Your task to perform on an android device: turn off javascript in the chrome app Image 0: 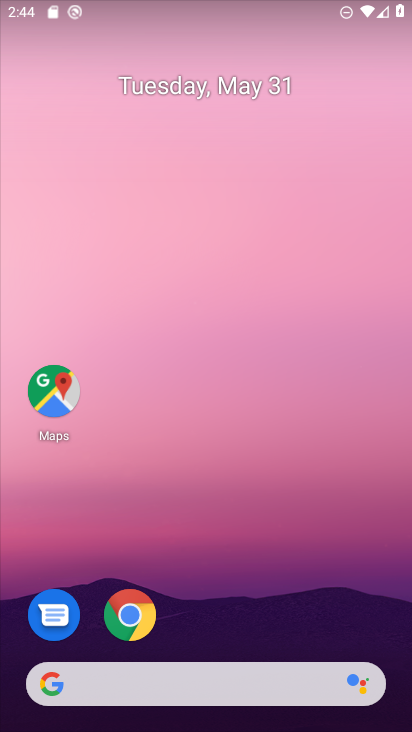
Step 0: drag from (291, 688) to (199, 210)
Your task to perform on an android device: turn off javascript in the chrome app Image 1: 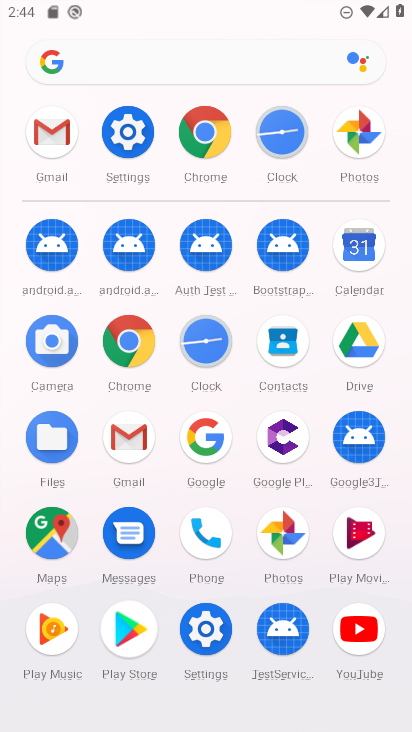
Step 1: click (204, 139)
Your task to perform on an android device: turn off javascript in the chrome app Image 2: 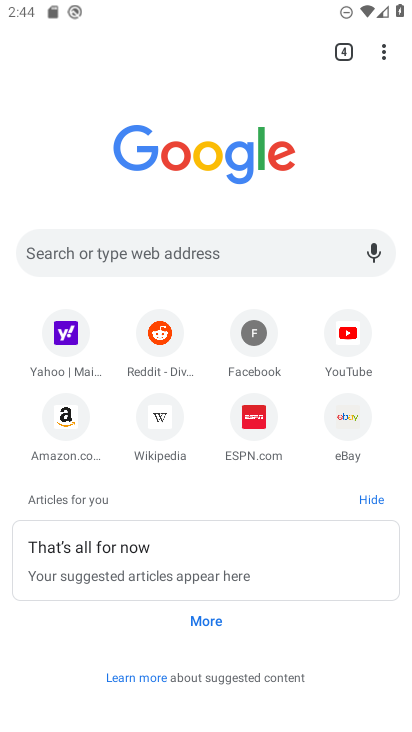
Step 2: drag from (383, 48) to (205, 491)
Your task to perform on an android device: turn off javascript in the chrome app Image 3: 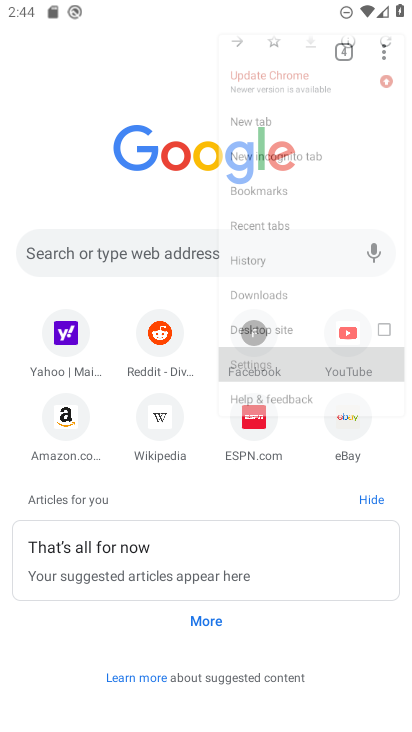
Step 3: click (205, 491)
Your task to perform on an android device: turn off javascript in the chrome app Image 4: 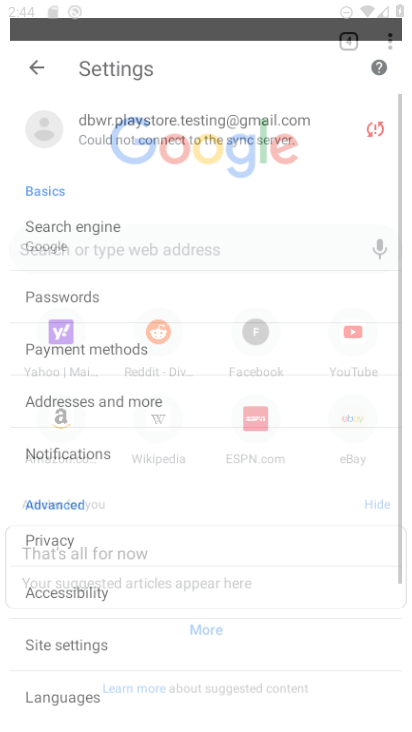
Step 4: click (204, 491)
Your task to perform on an android device: turn off javascript in the chrome app Image 5: 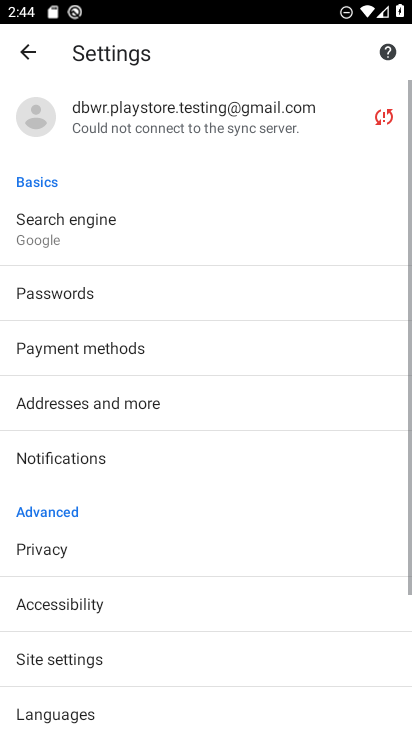
Step 5: drag from (146, 521) to (91, 177)
Your task to perform on an android device: turn off javascript in the chrome app Image 6: 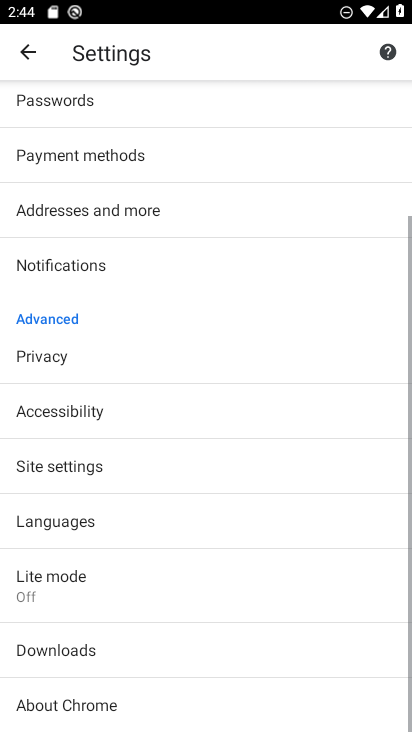
Step 6: drag from (123, 462) to (99, 261)
Your task to perform on an android device: turn off javascript in the chrome app Image 7: 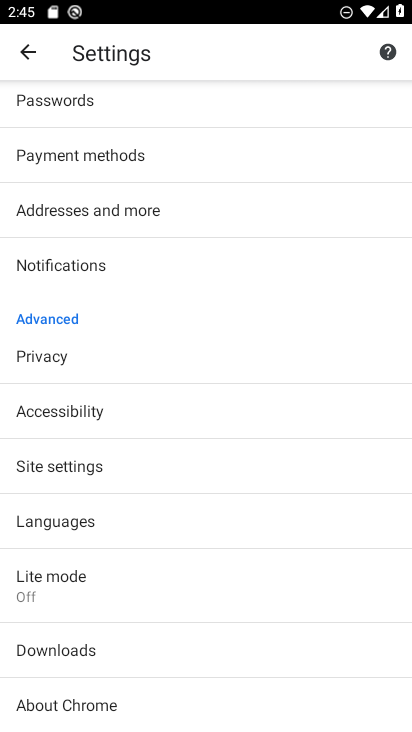
Step 7: click (45, 475)
Your task to perform on an android device: turn off javascript in the chrome app Image 8: 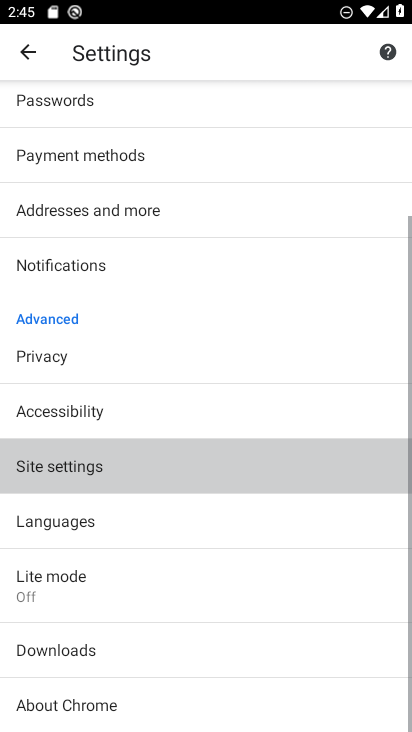
Step 8: click (45, 466)
Your task to perform on an android device: turn off javascript in the chrome app Image 9: 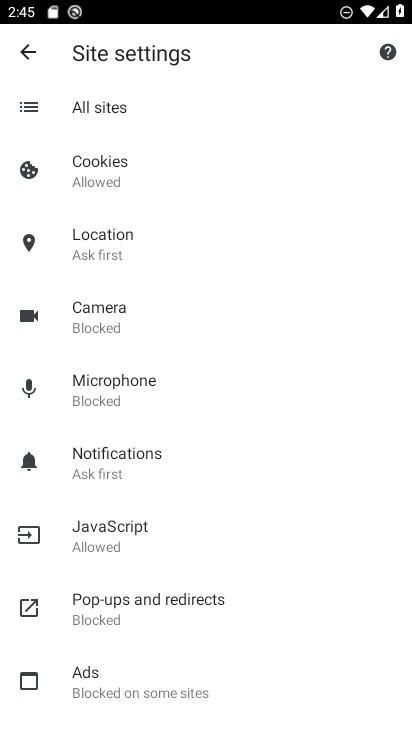
Step 9: click (112, 531)
Your task to perform on an android device: turn off javascript in the chrome app Image 10: 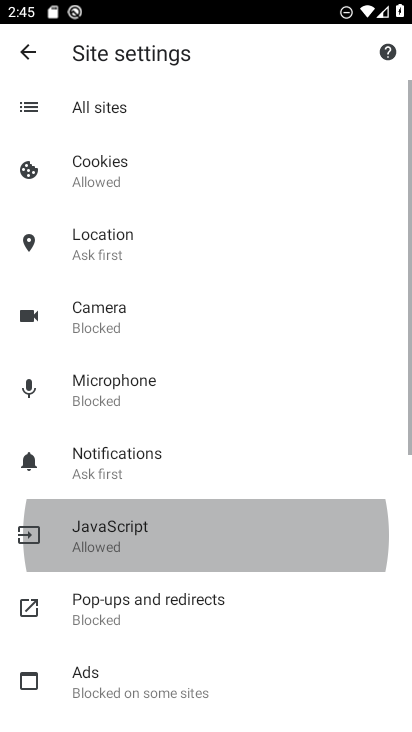
Step 10: click (112, 529)
Your task to perform on an android device: turn off javascript in the chrome app Image 11: 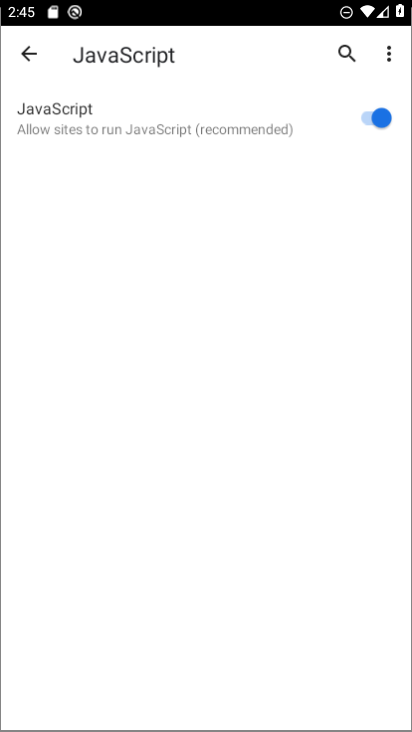
Step 11: click (108, 529)
Your task to perform on an android device: turn off javascript in the chrome app Image 12: 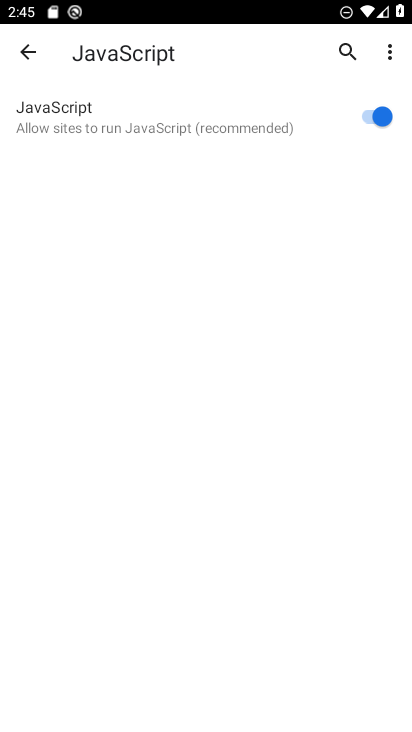
Step 12: click (381, 113)
Your task to perform on an android device: turn off javascript in the chrome app Image 13: 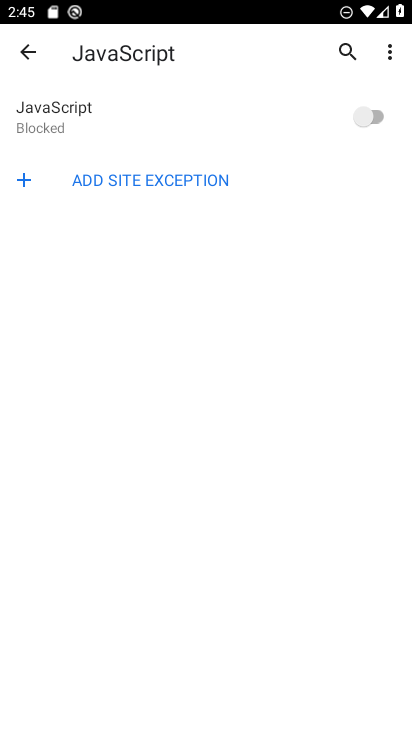
Step 13: task complete